Your task to perform on an android device: toggle airplane mode Image 0: 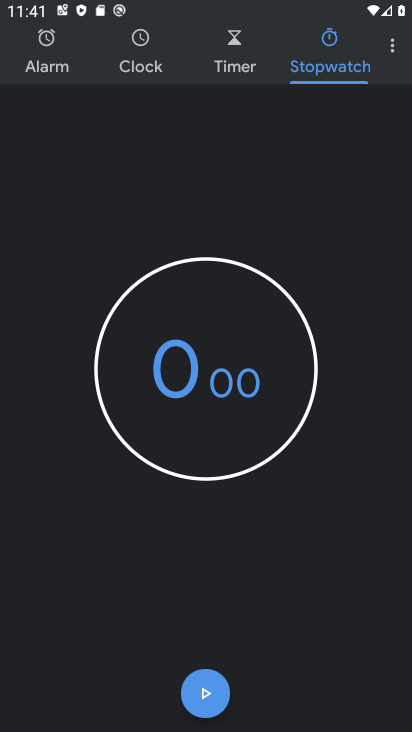
Step 0: press home button
Your task to perform on an android device: toggle airplane mode Image 1: 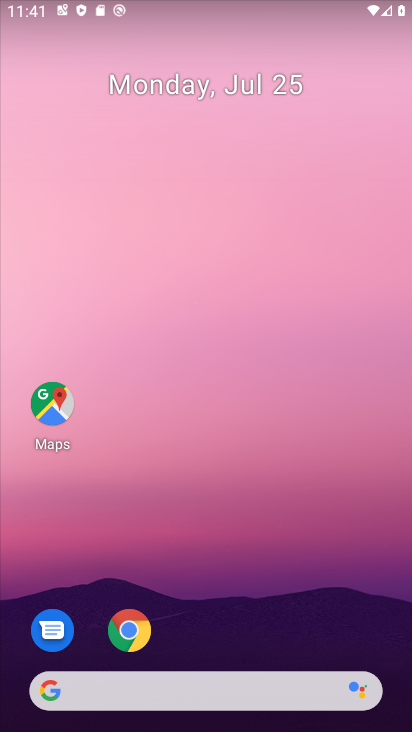
Step 1: drag from (358, 600) to (368, 152)
Your task to perform on an android device: toggle airplane mode Image 2: 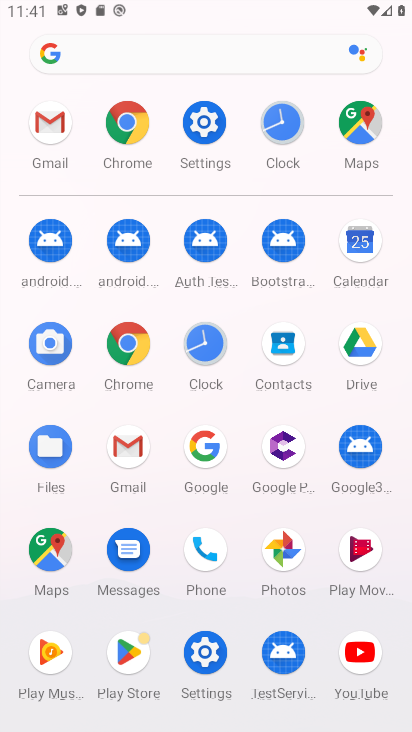
Step 2: click (210, 130)
Your task to perform on an android device: toggle airplane mode Image 3: 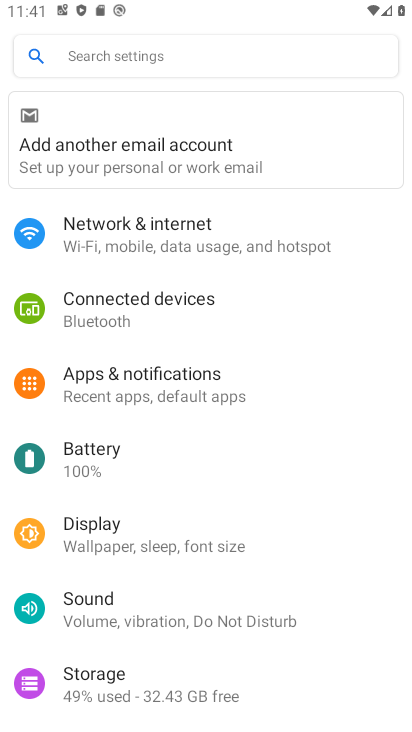
Step 3: drag from (336, 412) to (337, 338)
Your task to perform on an android device: toggle airplane mode Image 4: 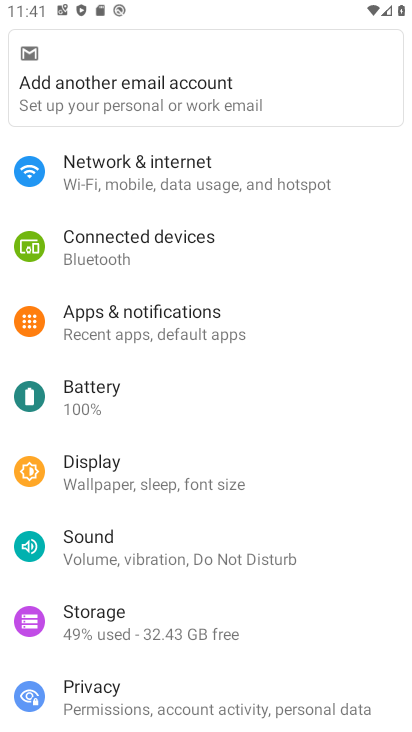
Step 4: drag from (352, 503) to (353, 391)
Your task to perform on an android device: toggle airplane mode Image 5: 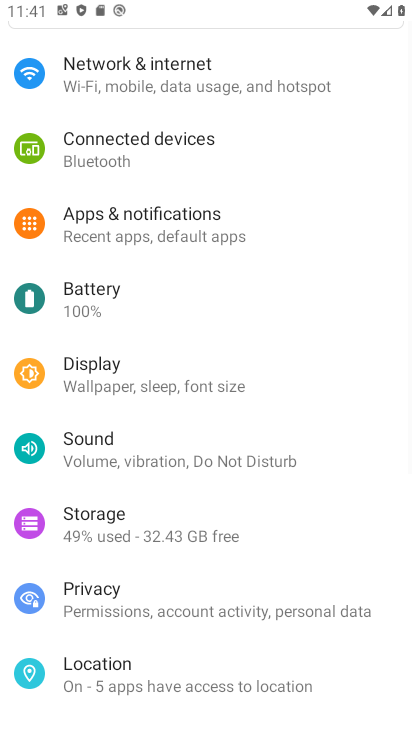
Step 5: drag from (327, 531) to (337, 434)
Your task to perform on an android device: toggle airplane mode Image 6: 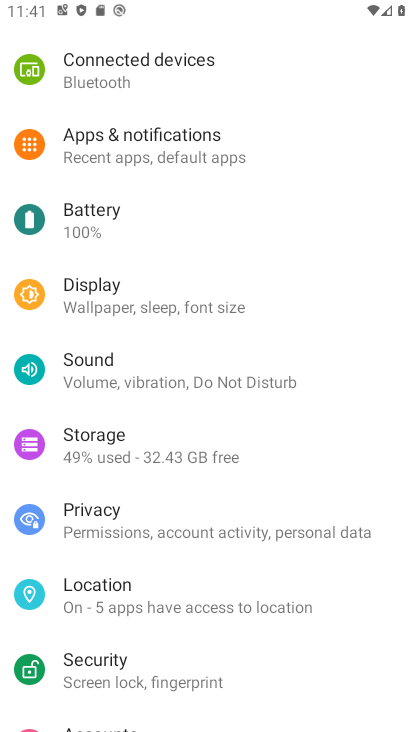
Step 6: drag from (333, 580) to (339, 468)
Your task to perform on an android device: toggle airplane mode Image 7: 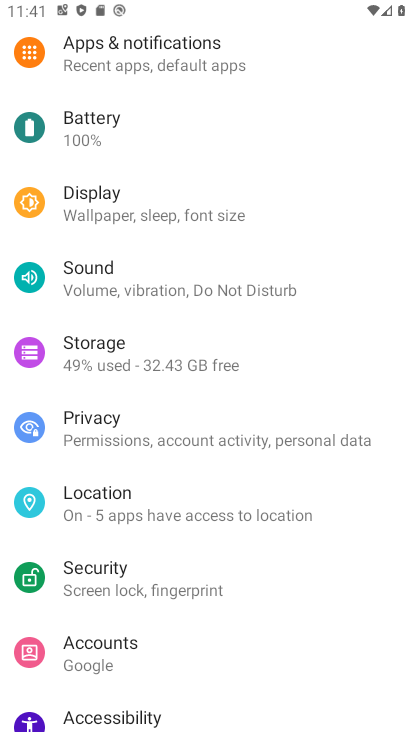
Step 7: drag from (336, 605) to (334, 399)
Your task to perform on an android device: toggle airplane mode Image 8: 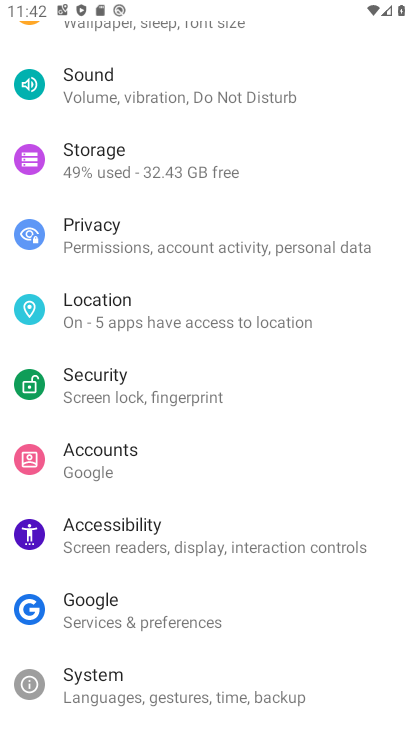
Step 8: drag from (332, 632) to (338, 478)
Your task to perform on an android device: toggle airplane mode Image 9: 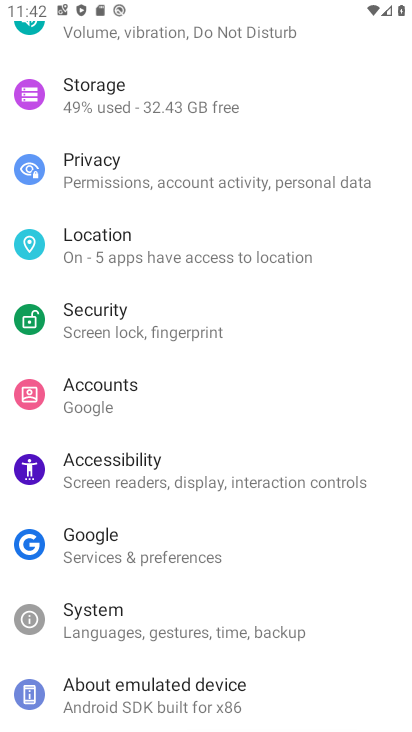
Step 9: drag from (338, 357) to (344, 466)
Your task to perform on an android device: toggle airplane mode Image 10: 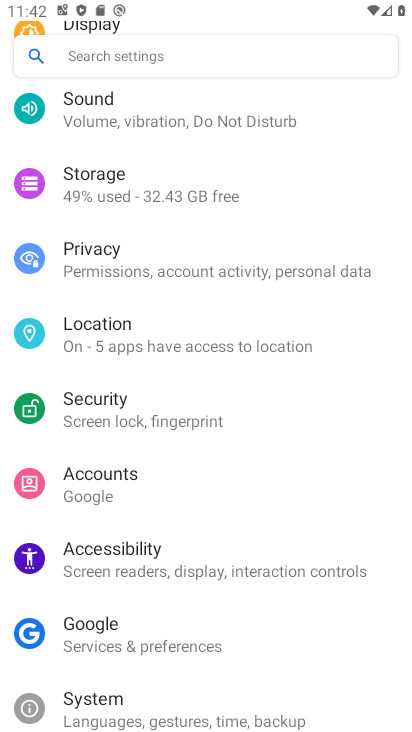
Step 10: drag from (353, 317) to (353, 426)
Your task to perform on an android device: toggle airplane mode Image 11: 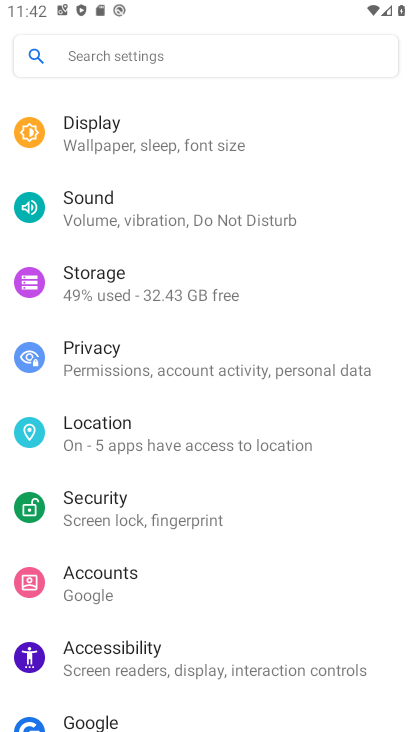
Step 11: drag from (364, 276) to (366, 397)
Your task to perform on an android device: toggle airplane mode Image 12: 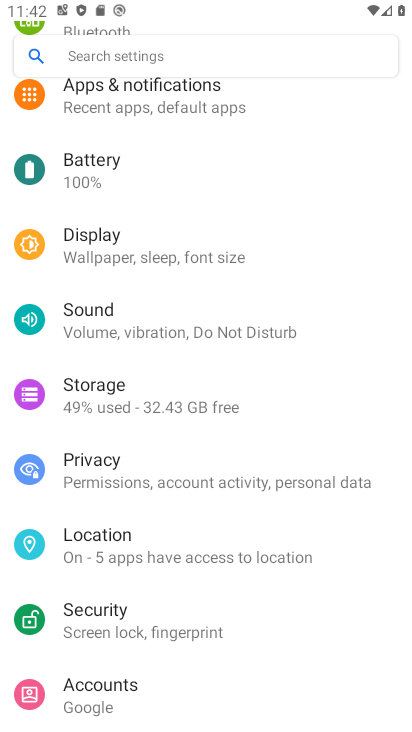
Step 12: drag from (358, 301) to (358, 422)
Your task to perform on an android device: toggle airplane mode Image 13: 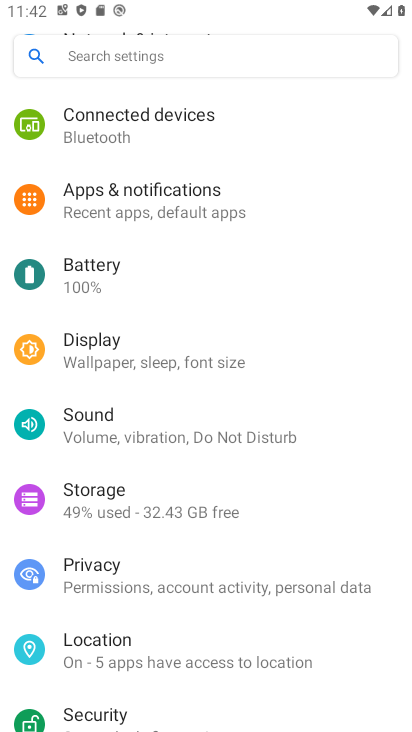
Step 13: drag from (351, 256) to (366, 549)
Your task to perform on an android device: toggle airplane mode Image 14: 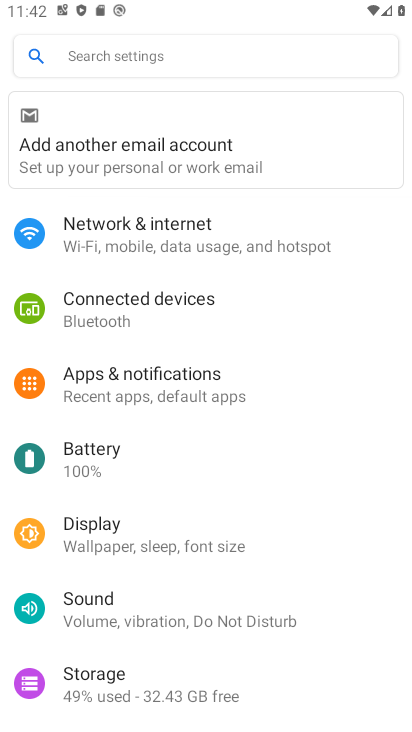
Step 14: click (325, 239)
Your task to perform on an android device: toggle airplane mode Image 15: 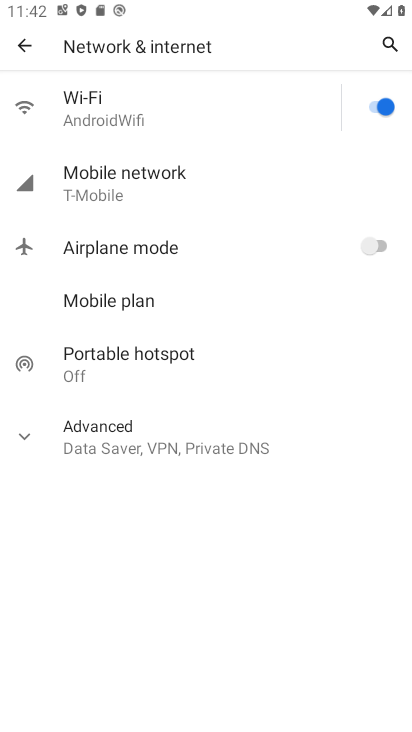
Step 15: click (364, 244)
Your task to perform on an android device: toggle airplane mode Image 16: 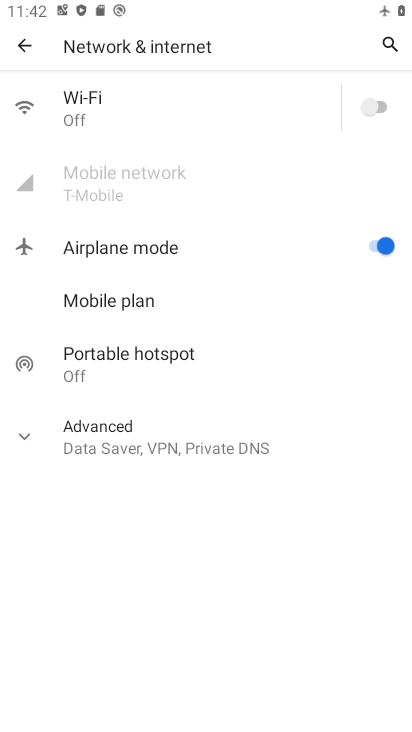
Step 16: task complete